Your task to perform on an android device: See recent photos Image 0: 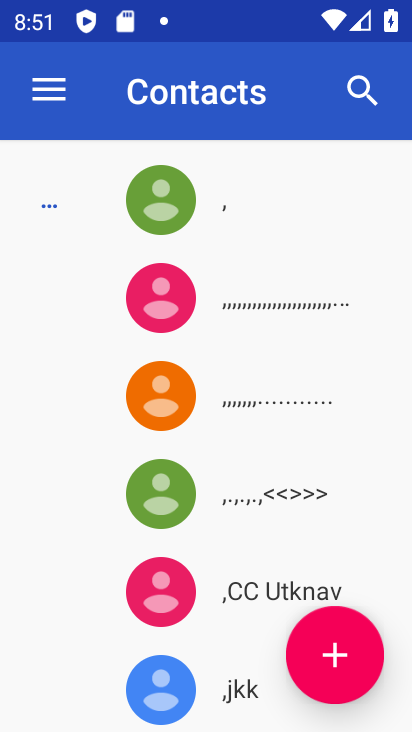
Step 0: press back button
Your task to perform on an android device: See recent photos Image 1: 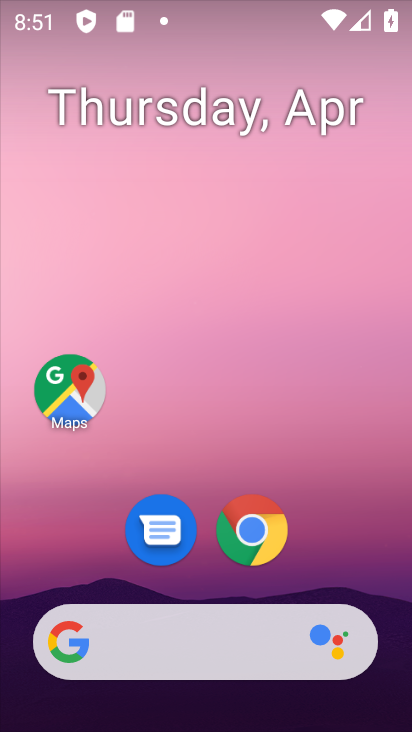
Step 1: drag from (353, 542) to (320, 80)
Your task to perform on an android device: See recent photos Image 2: 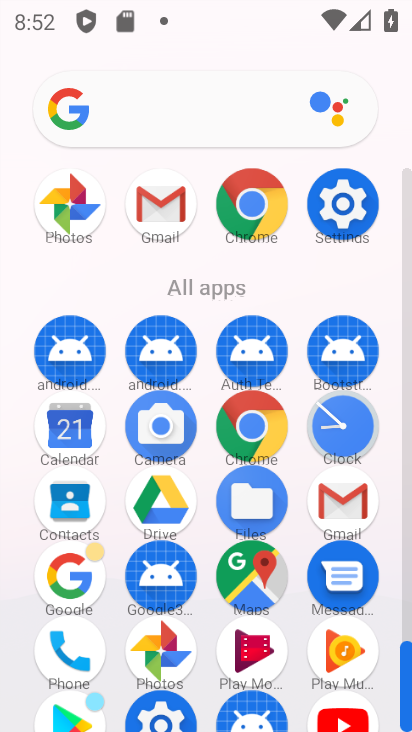
Step 2: click (161, 658)
Your task to perform on an android device: See recent photos Image 3: 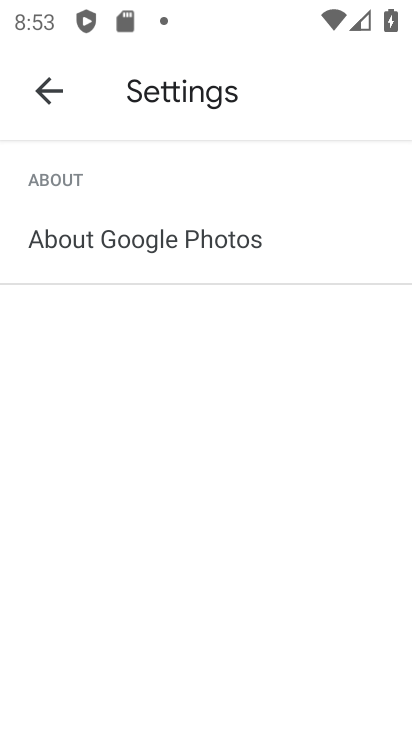
Step 3: press back button
Your task to perform on an android device: See recent photos Image 4: 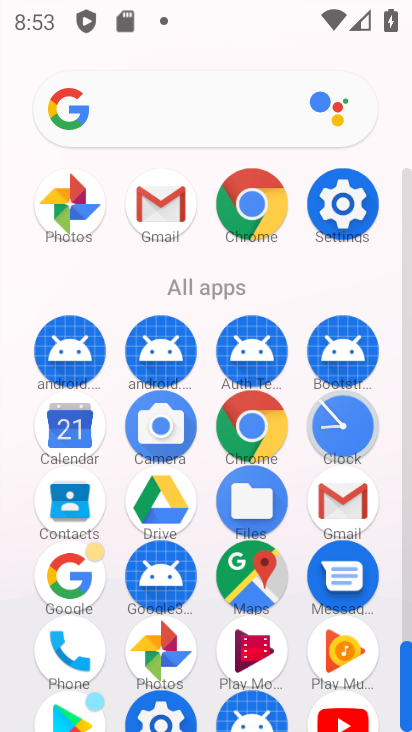
Step 4: click (52, 221)
Your task to perform on an android device: See recent photos Image 5: 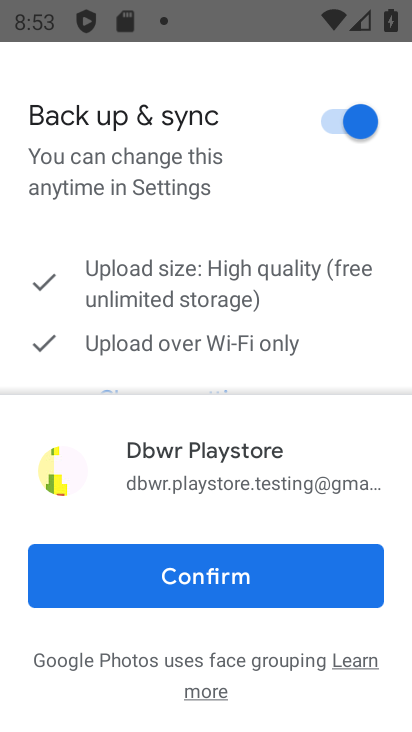
Step 5: click (198, 575)
Your task to perform on an android device: See recent photos Image 6: 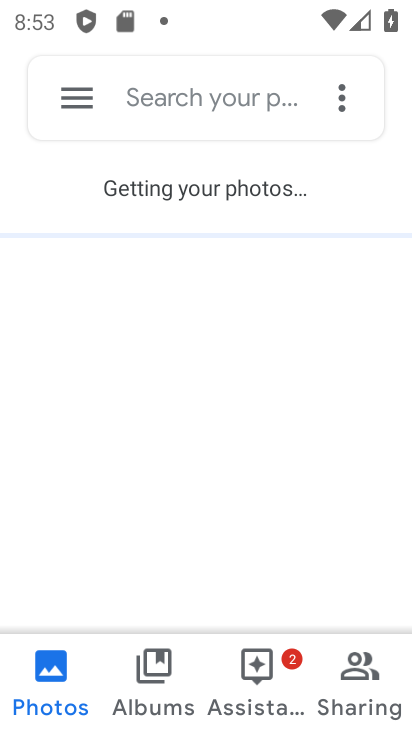
Step 6: task complete